Your task to perform on an android device: check storage Image 0: 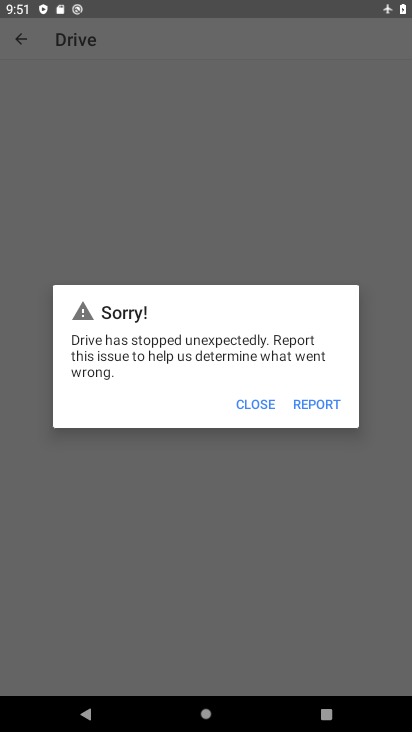
Step 0: press home button
Your task to perform on an android device: check storage Image 1: 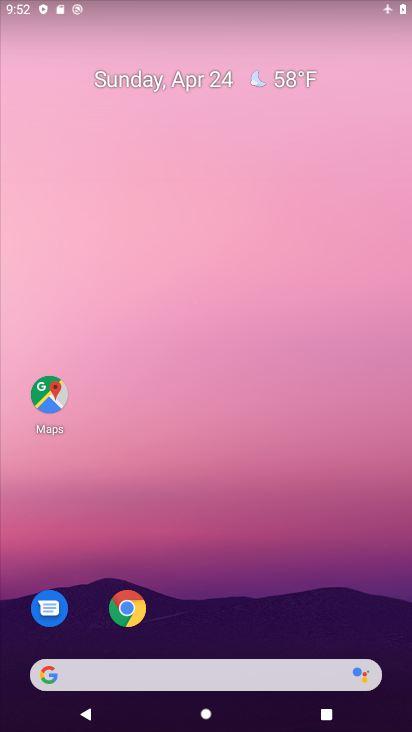
Step 1: drag from (265, 325) to (291, 166)
Your task to perform on an android device: check storage Image 2: 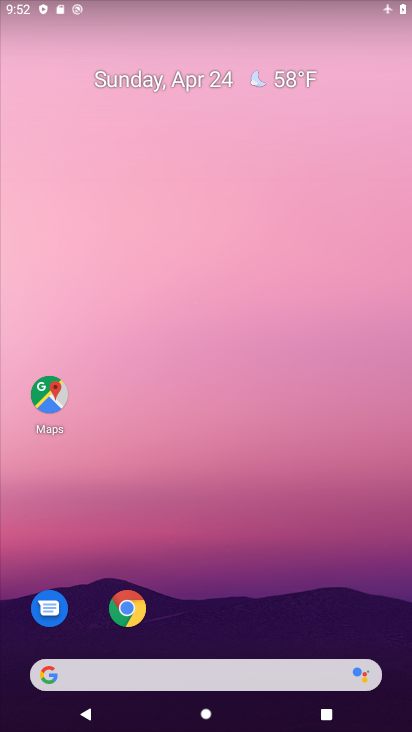
Step 2: drag from (323, 550) to (330, 0)
Your task to perform on an android device: check storage Image 3: 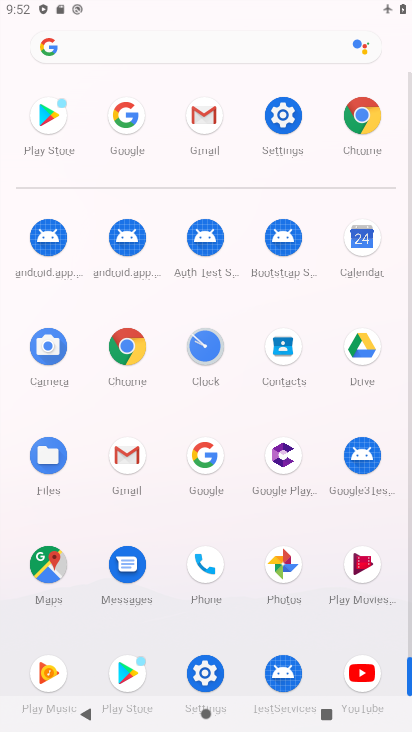
Step 3: click (297, 102)
Your task to perform on an android device: check storage Image 4: 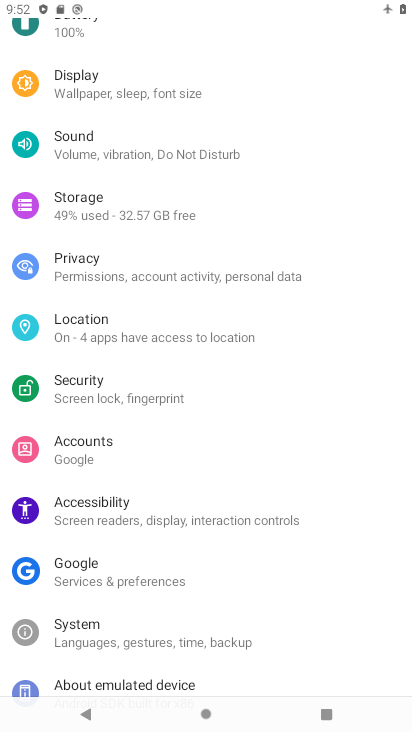
Step 4: drag from (169, 509) to (227, 53)
Your task to perform on an android device: check storage Image 5: 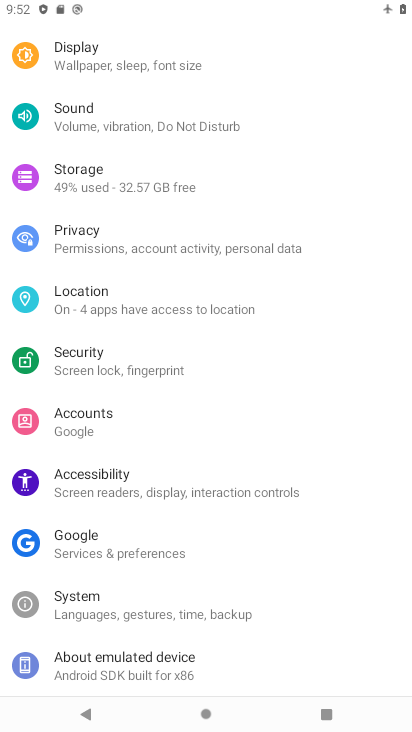
Step 5: drag from (243, 161) to (215, 586)
Your task to perform on an android device: check storage Image 6: 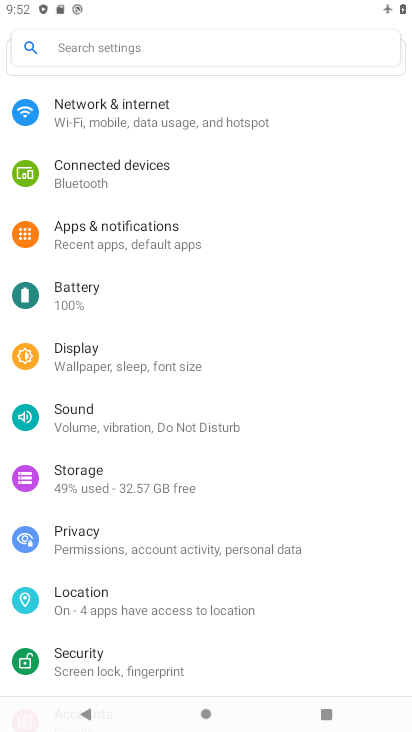
Step 6: click (229, 501)
Your task to perform on an android device: check storage Image 7: 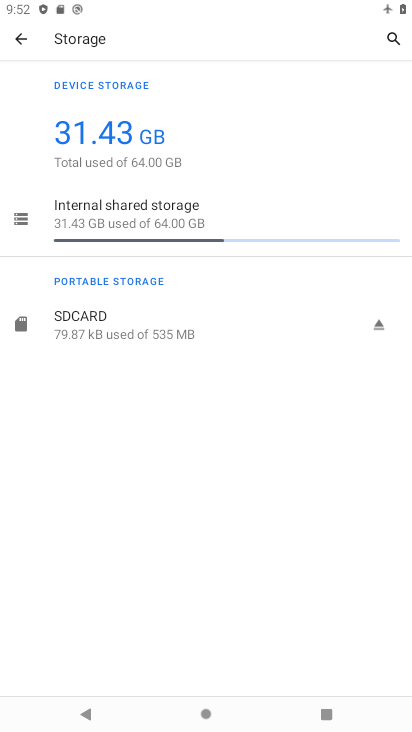
Step 7: press back button
Your task to perform on an android device: check storage Image 8: 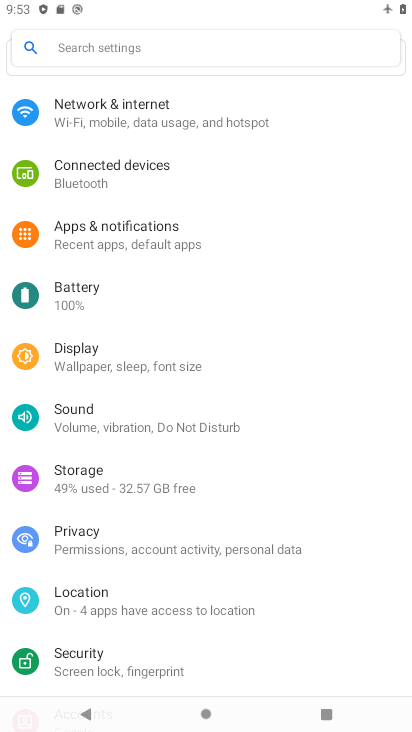
Step 8: click (98, 479)
Your task to perform on an android device: check storage Image 9: 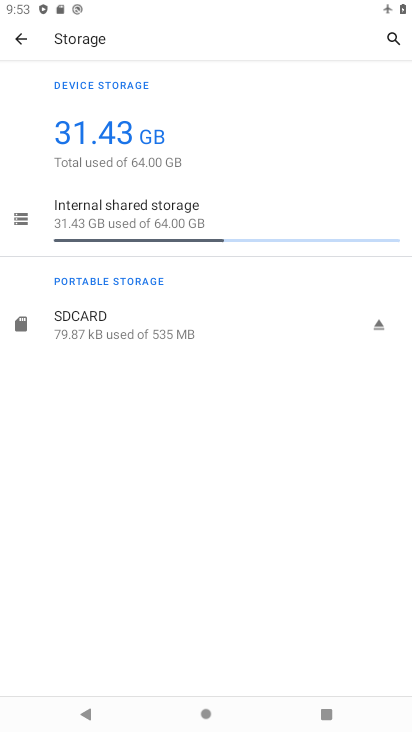
Step 9: click (210, 242)
Your task to perform on an android device: check storage Image 10: 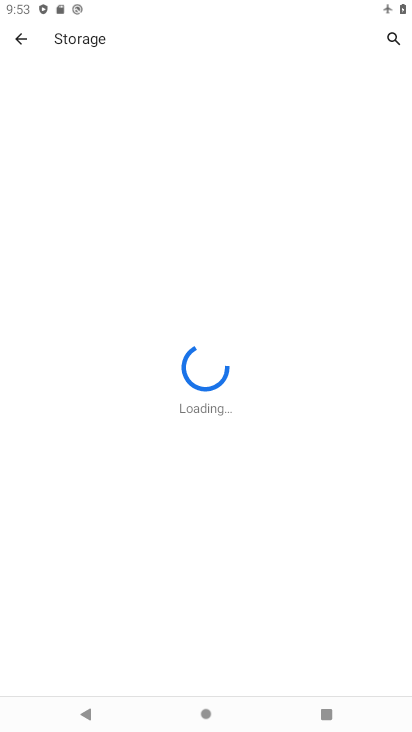
Step 10: task complete